Your task to perform on an android device: Play the last video I watched on Youtube Image 0: 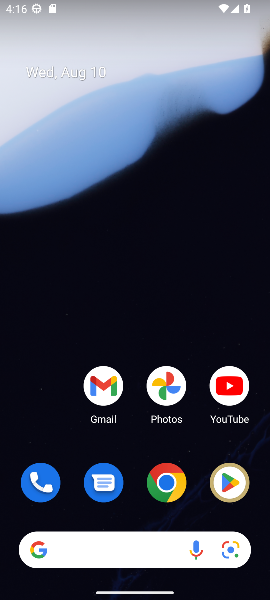
Step 0: click (232, 391)
Your task to perform on an android device: Play the last video I watched on Youtube Image 1: 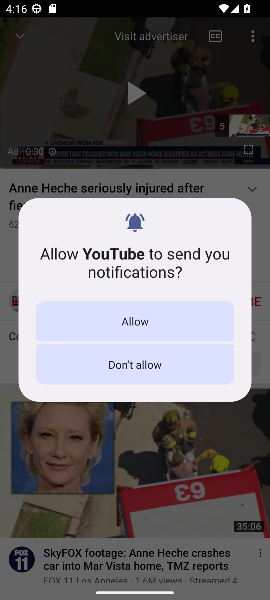
Step 1: click (178, 320)
Your task to perform on an android device: Play the last video I watched on Youtube Image 2: 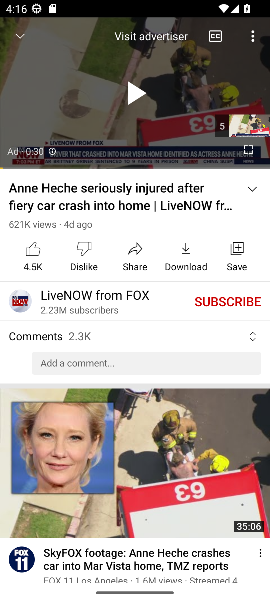
Step 2: drag from (146, 460) to (156, 151)
Your task to perform on an android device: Play the last video I watched on Youtube Image 3: 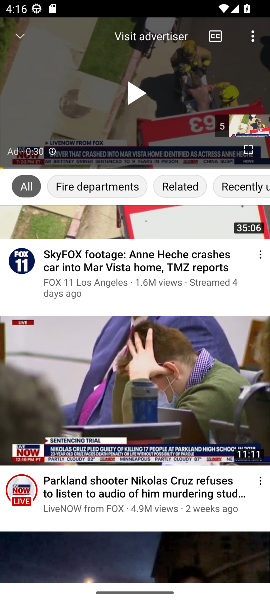
Step 3: drag from (143, 210) to (128, 445)
Your task to perform on an android device: Play the last video I watched on Youtube Image 4: 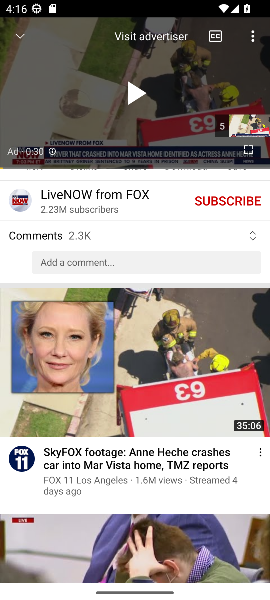
Step 4: drag from (148, 240) to (160, 431)
Your task to perform on an android device: Play the last video I watched on Youtube Image 5: 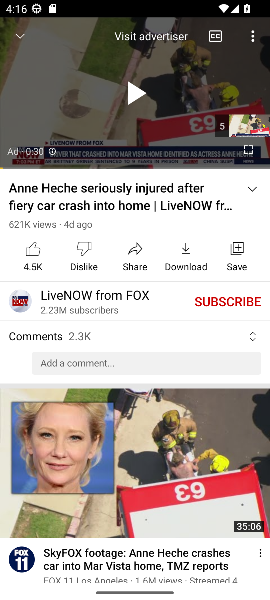
Step 5: press back button
Your task to perform on an android device: Play the last video I watched on Youtube Image 6: 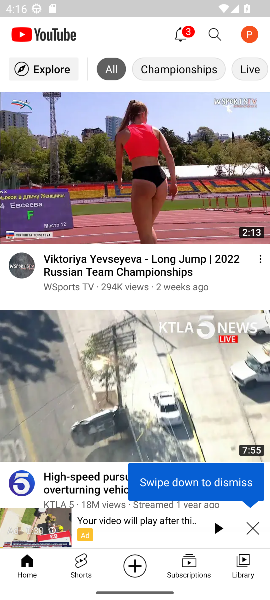
Step 6: click (240, 555)
Your task to perform on an android device: Play the last video I watched on Youtube Image 7: 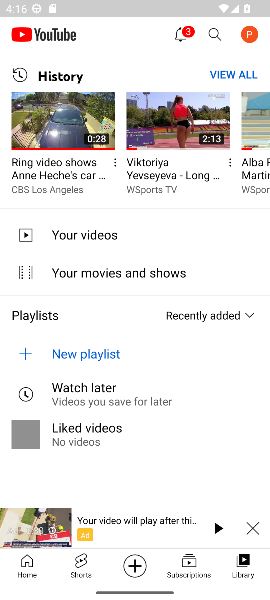
Step 7: click (88, 119)
Your task to perform on an android device: Play the last video I watched on Youtube Image 8: 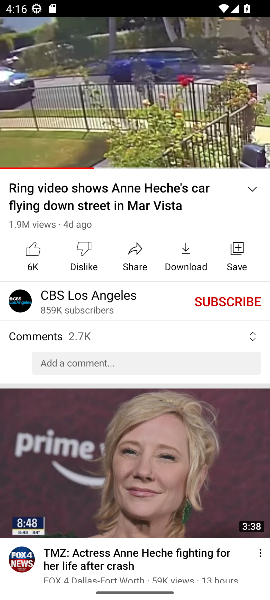
Step 8: task complete